Your task to perform on an android device: Open ESPN.com Image 0: 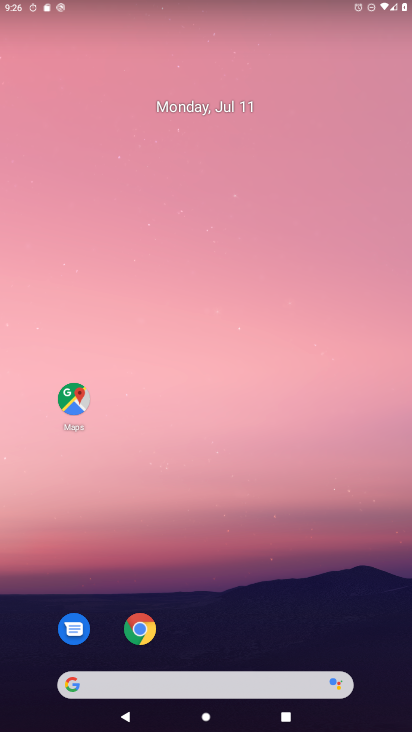
Step 0: drag from (202, 619) to (207, 104)
Your task to perform on an android device: Open ESPN.com Image 1: 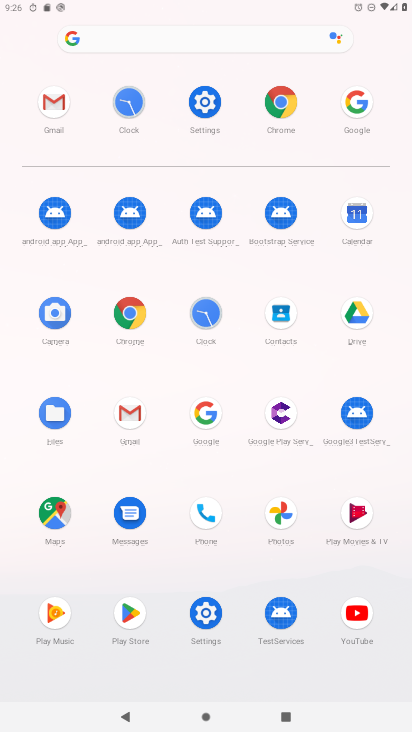
Step 1: click (209, 412)
Your task to perform on an android device: Open ESPN.com Image 2: 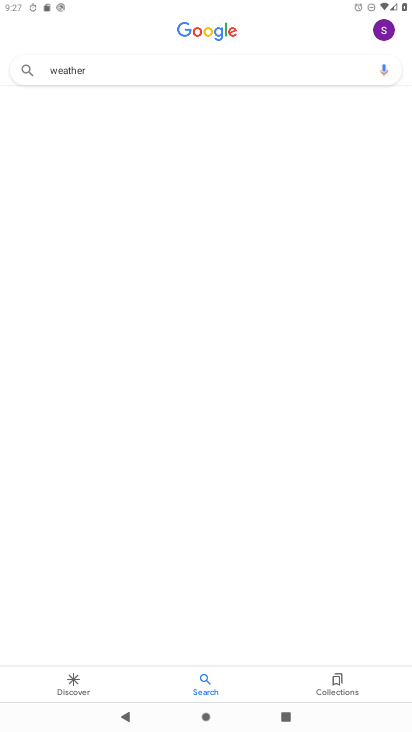
Step 2: drag from (141, 40) to (199, 0)
Your task to perform on an android device: Open ESPN.com Image 3: 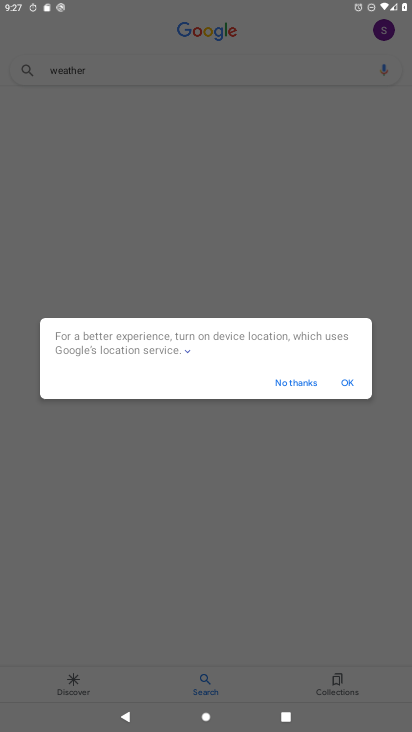
Step 3: click (300, 380)
Your task to perform on an android device: Open ESPN.com Image 4: 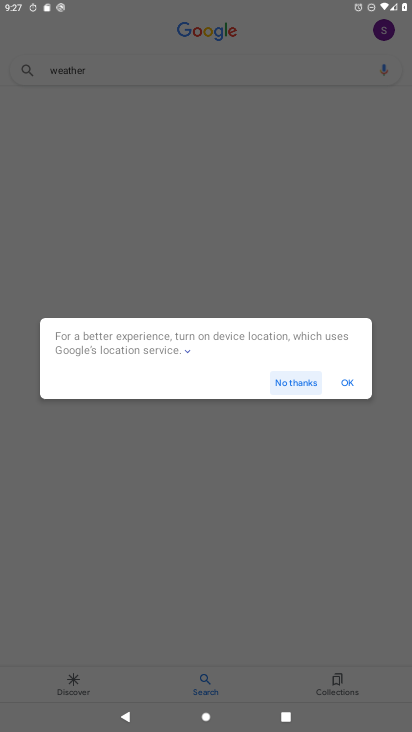
Step 4: click (160, 67)
Your task to perform on an android device: Open ESPN.com Image 5: 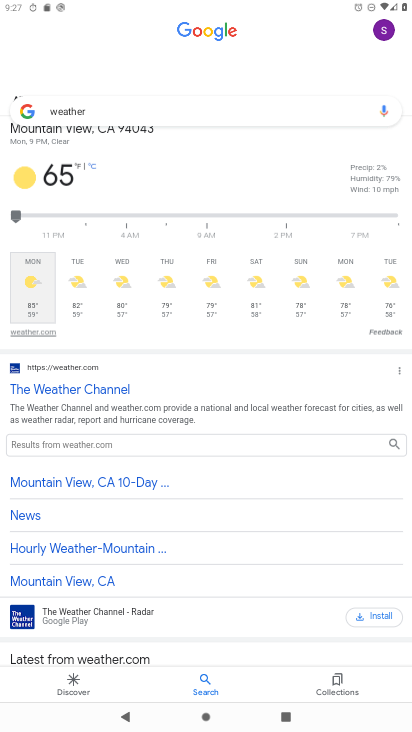
Step 5: click (145, 103)
Your task to perform on an android device: Open ESPN.com Image 6: 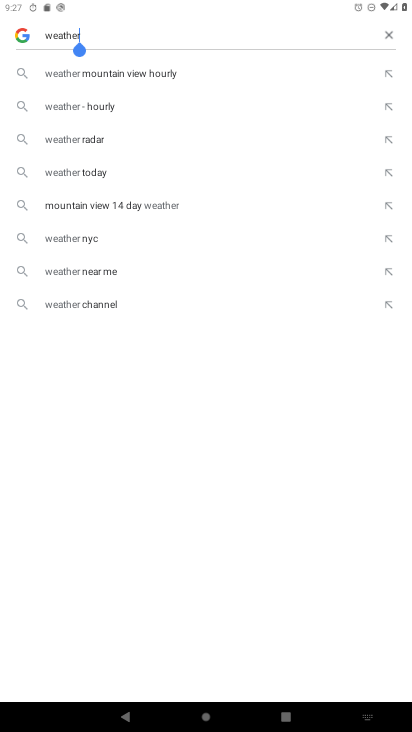
Step 6: click (390, 33)
Your task to perform on an android device: Open ESPN.com Image 7: 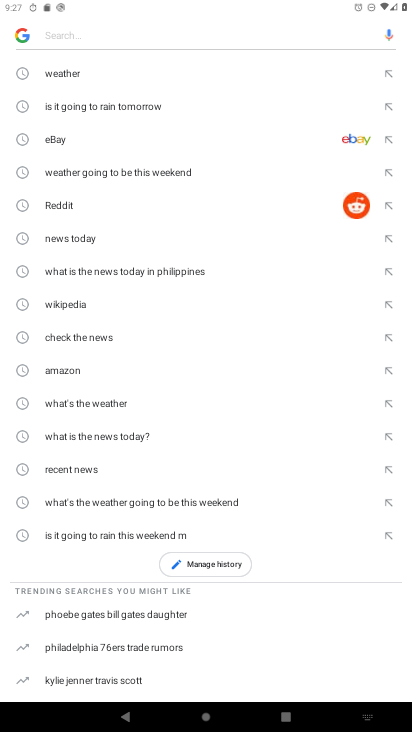
Step 7: type "espn"
Your task to perform on an android device: Open ESPN.com Image 8: 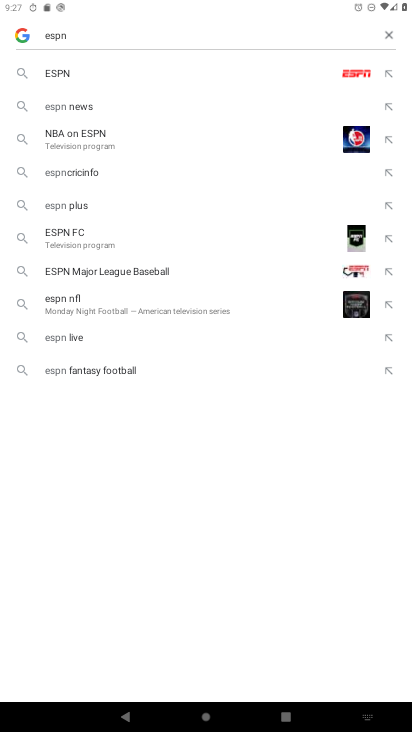
Step 8: drag from (145, 79) to (127, 114)
Your task to perform on an android device: Open ESPN.com Image 9: 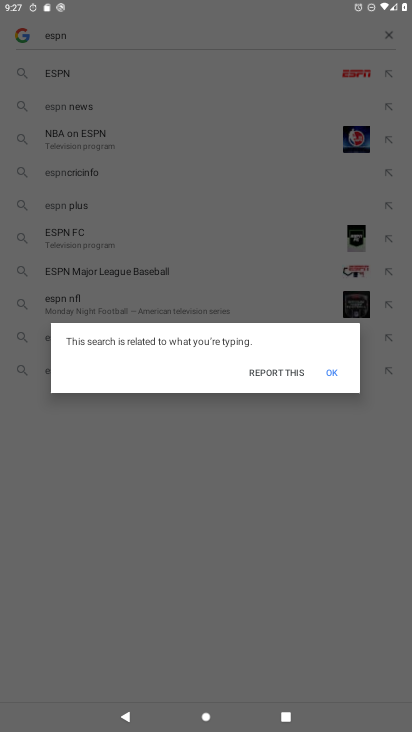
Step 9: click (324, 375)
Your task to perform on an android device: Open ESPN.com Image 10: 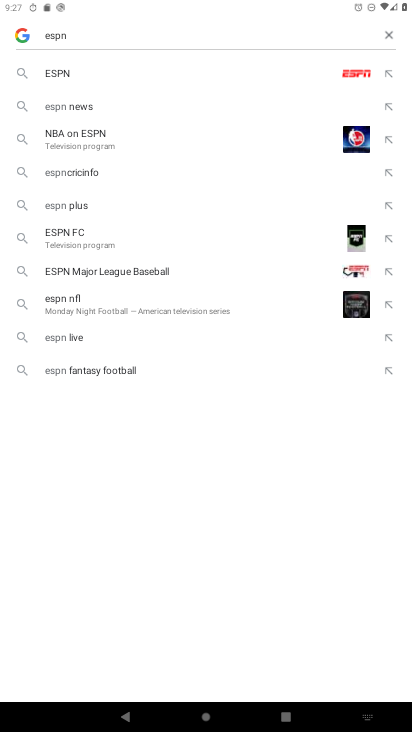
Step 10: click (123, 62)
Your task to perform on an android device: Open ESPN.com Image 11: 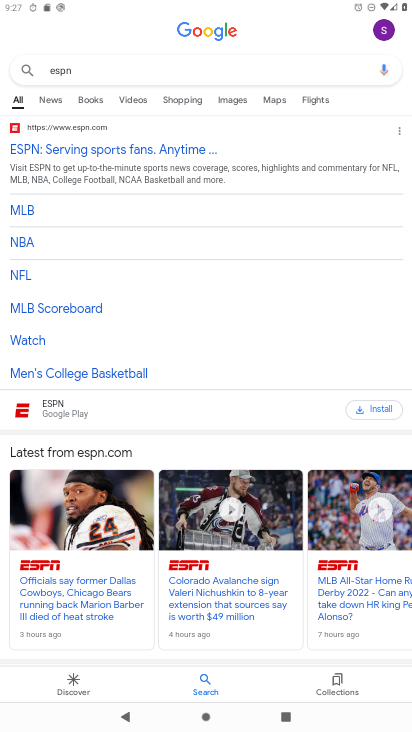
Step 11: click (77, 145)
Your task to perform on an android device: Open ESPN.com Image 12: 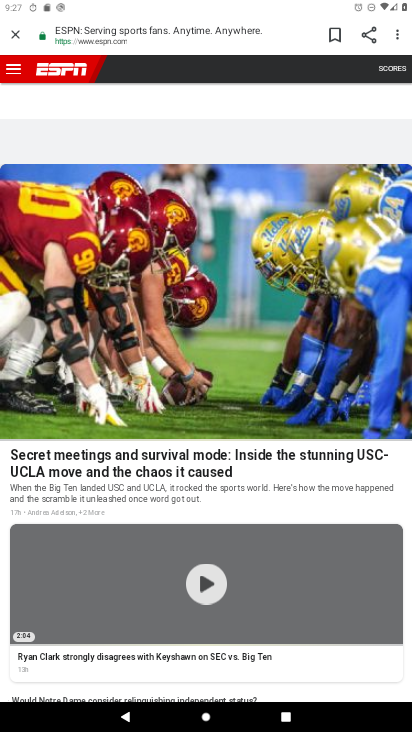
Step 12: task complete